Your task to perform on an android device: Open CNN.com Image 0: 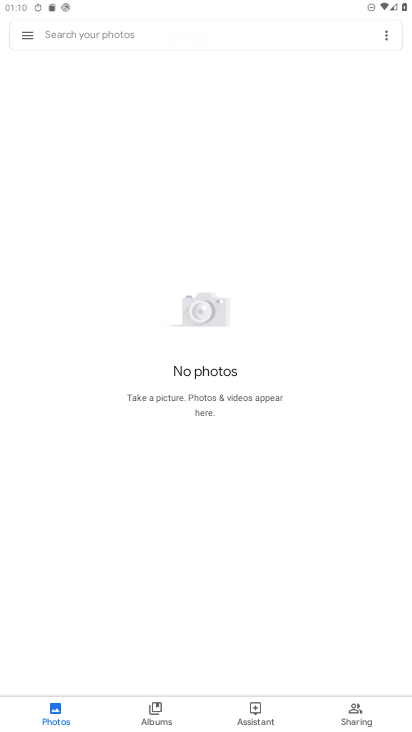
Step 0: press home button
Your task to perform on an android device: Open CNN.com Image 1: 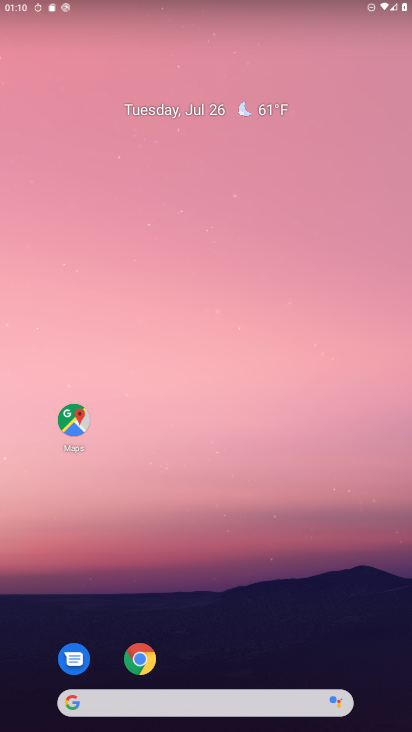
Step 1: click (121, 697)
Your task to perform on an android device: Open CNN.com Image 2: 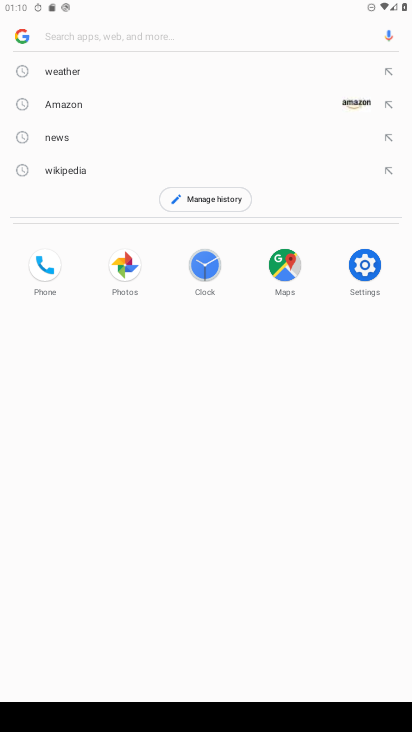
Step 2: type "CNN.com"
Your task to perform on an android device: Open CNN.com Image 3: 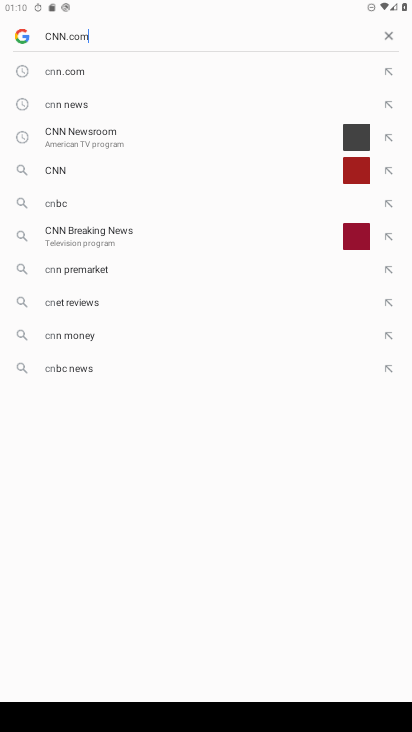
Step 3: type ""
Your task to perform on an android device: Open CNN.com Image 4: 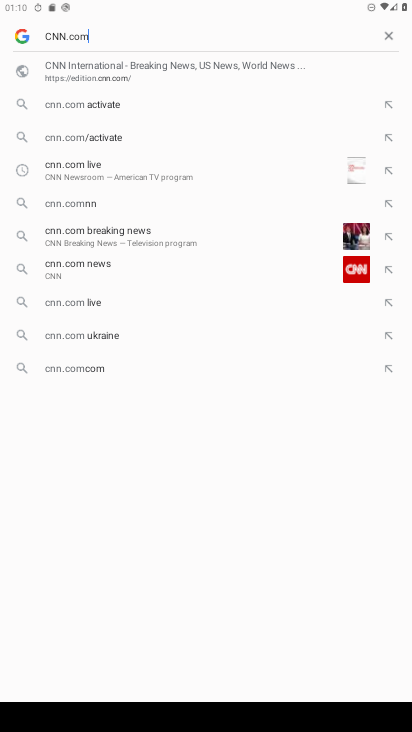
Step 4: click (71, 72)
Your task to perform on an android device: Open CNN.com Image 5: 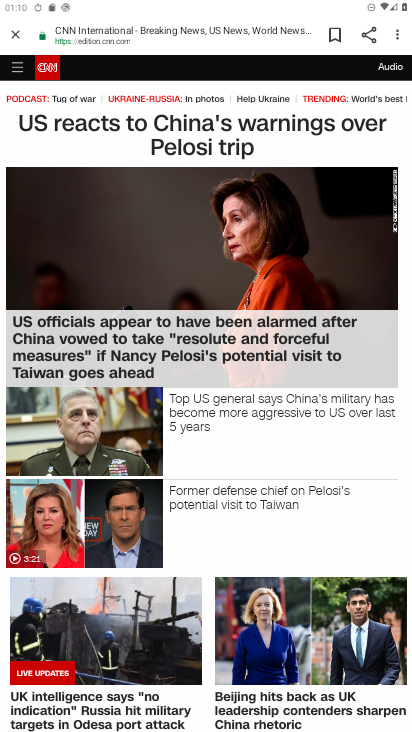
Step 5: task complete